Your task to perform on an android device: change the upload size in google photos Image 0: 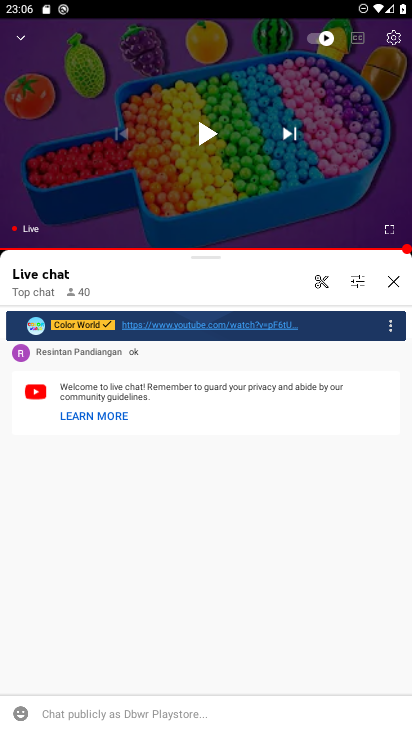
Step 0: press home button
Your task to perform on an android device: change the upload size in google photos Image 1: 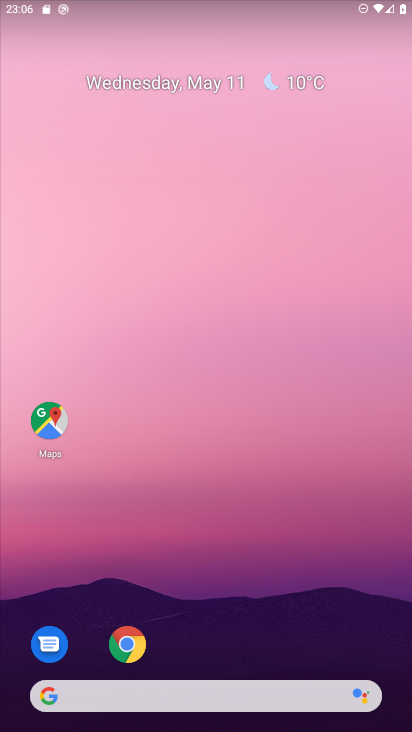
Step 1: click (348, 632)
Your task to perform on an android device: change the upload size in google photos Image 2: 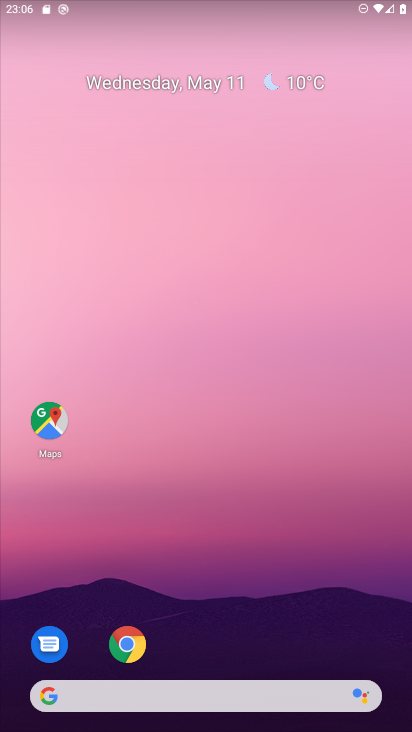
Step 2: drag from (348, 632) to (288, 3)
Your task to perform on an android device: change the upload size in google photos Image 3: 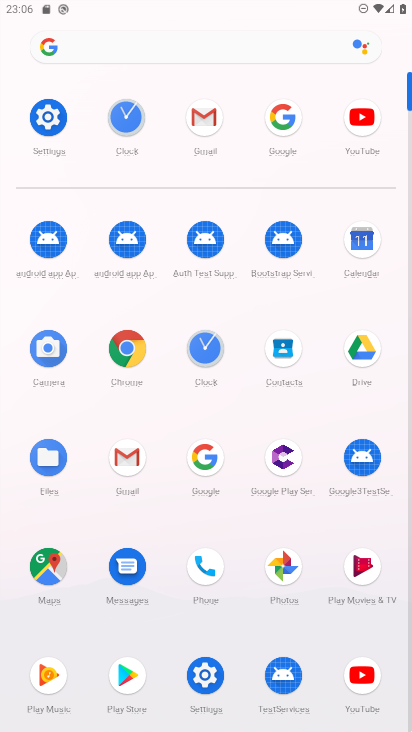
Step 3: click (282, 567)
Your task to perform on an android device: change the upload size in google photos Image 4: 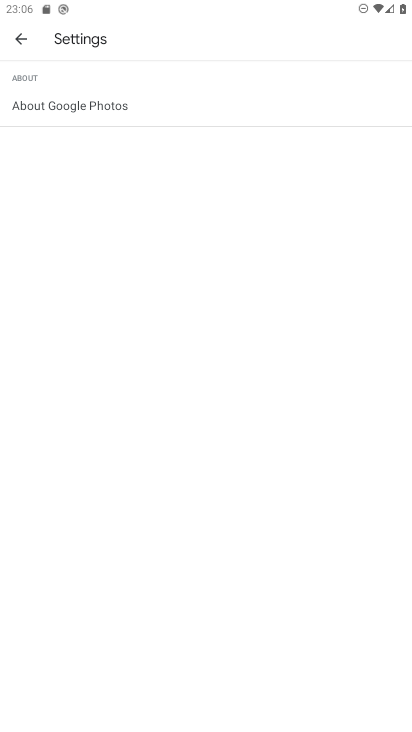
Step 4: click (23, 41)
Your task to perform on an android device: change the upload size in google photos Image 5: 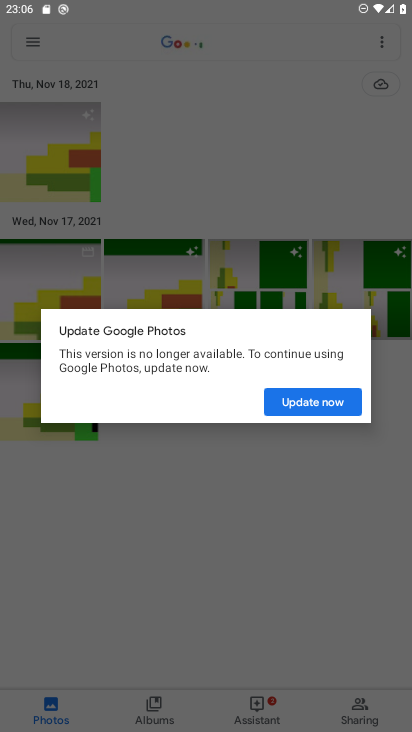
Step 5: click (301, 407)
Your task to perform on an android device: change the upload size in google photos Image 6: 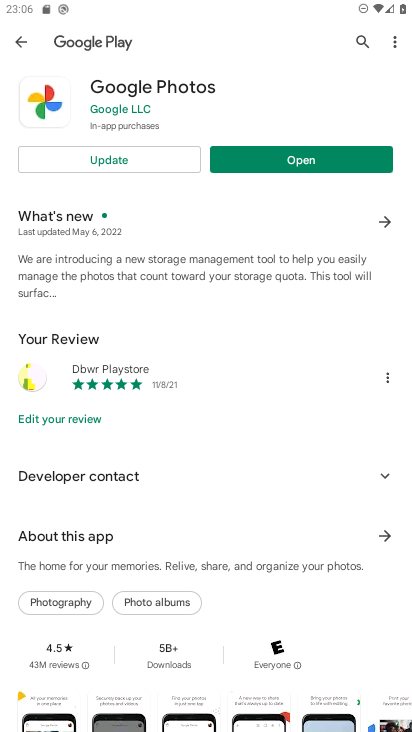
Step 6: click (318, 167)
Your task to perform on an android device: change the upload size in google photos Image 7: 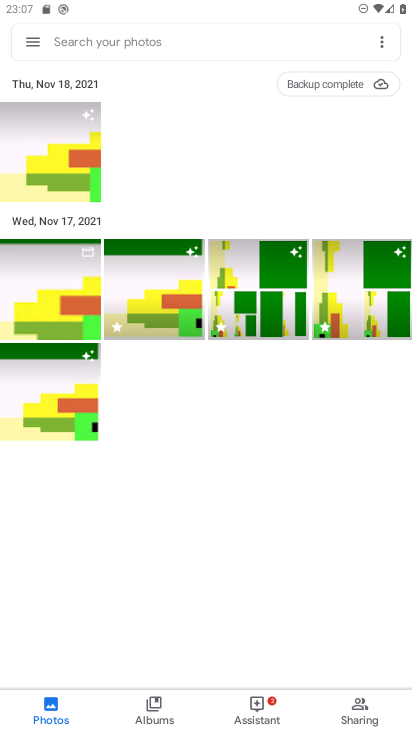
Step 7: click (35, 43)
Your task to perform on an android device: change the upload size in google photos Image 8: 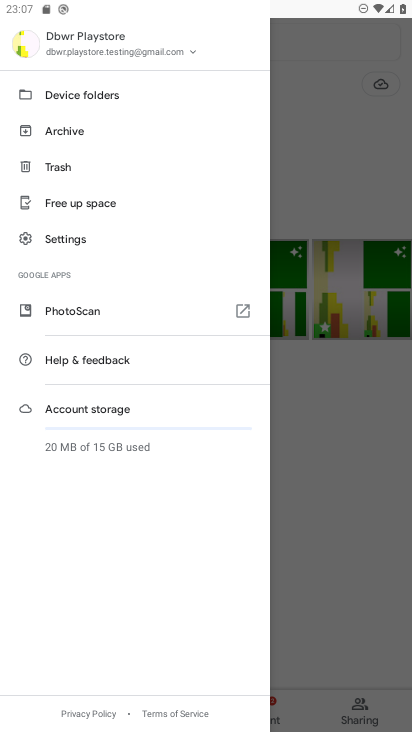
Step 8: click (50, 240)
Your task to perform on an android device: change the upload size in google photos Image 9: 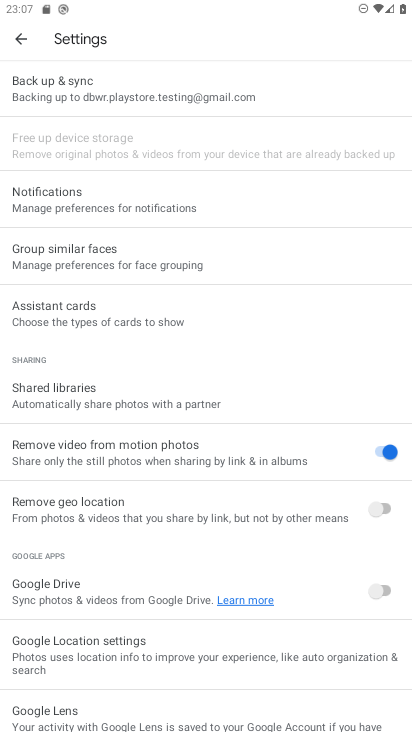
Step 9: click (106, 103)
Your task to perform on an android device: change the upload size in google photos Image 10: 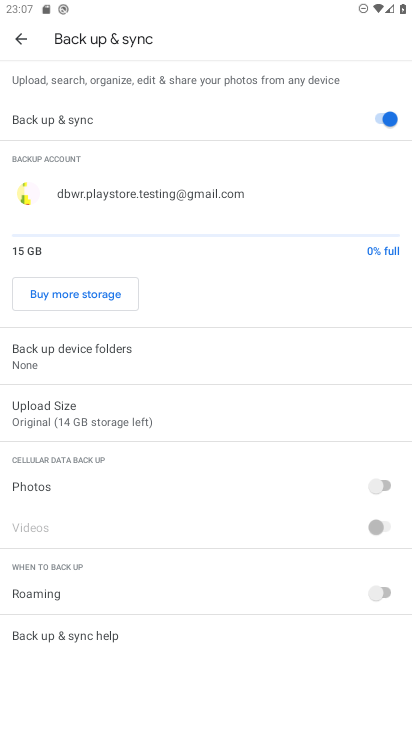
Step 10: click (64, 413)
Your task to perform on an android device: change the upload size in google photos Image 11: 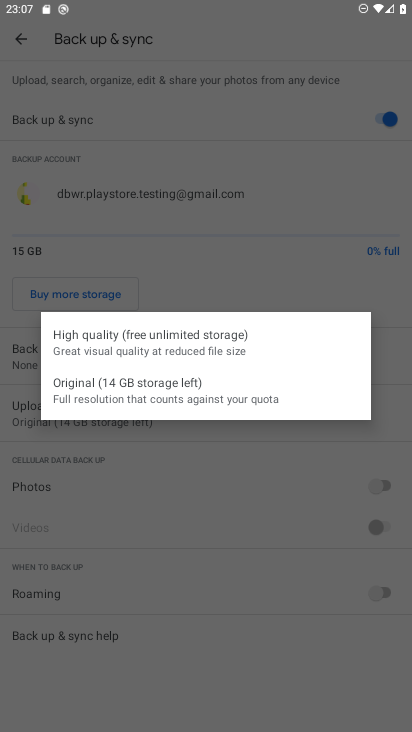
Step 11: click (103, 345)
Your task to perform on an android device: change the upload size in google photos Image 12: 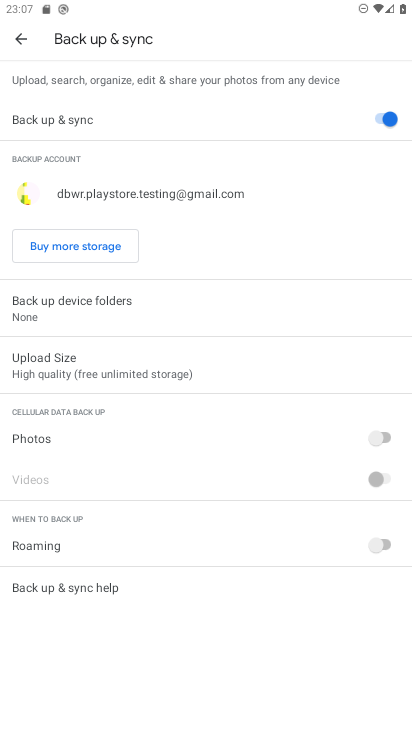
Step 12: task complete